Your task to perform on an android device: Go to CNN.com Image 0: 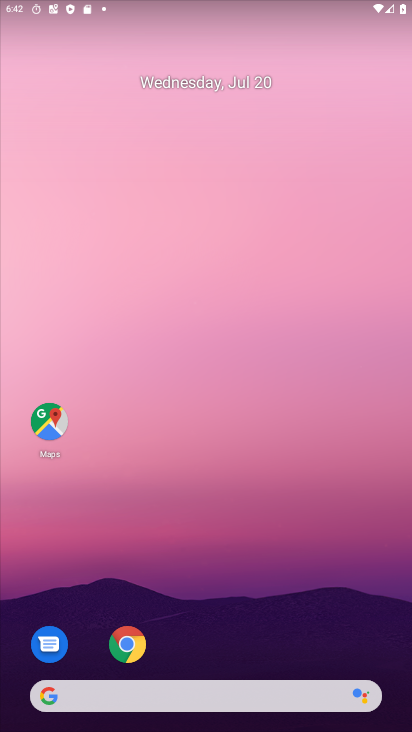
Step 0: press home button
Your task to perform on an android device: Go to CNN.com Image 1: 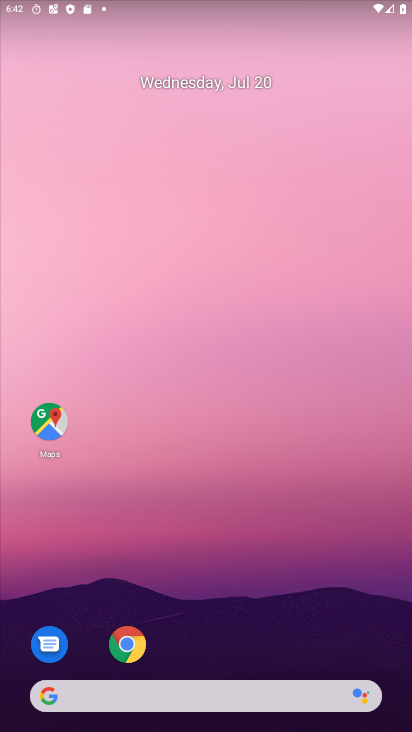
Step 1: click (43, 695)
Your task to perform on an android device: Go to CNN.com Image 2: 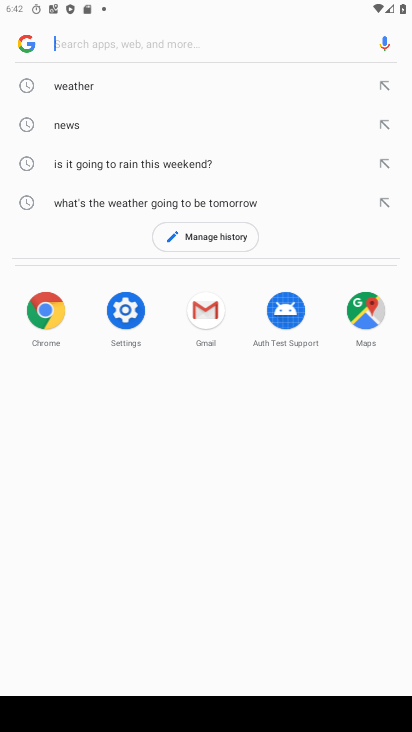
Step 2: type "CNN.com"
Your task to perform on an android device: Go to CNN.com Image 3: 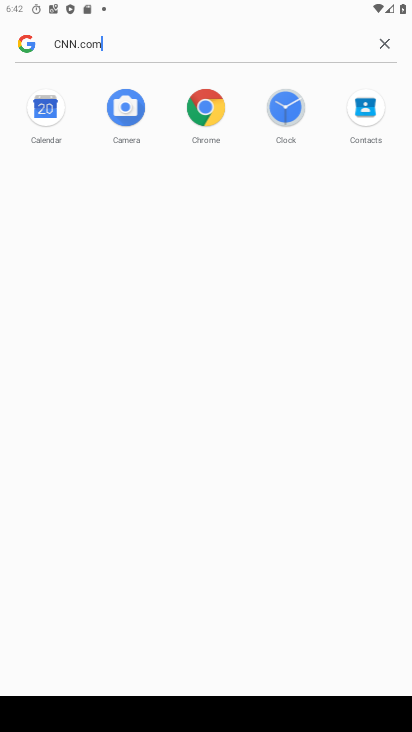
Step 3: press enter
Your task to perform on an android device: Go to CNN.com Image 4: 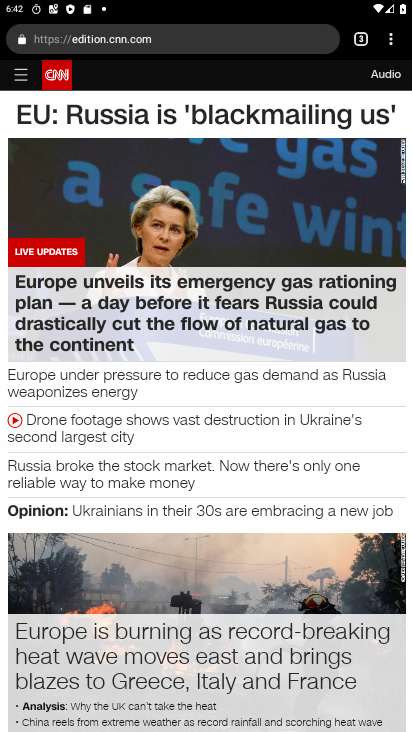
Step 4: task complete